Your task to perform on an android device: Open Youtube and go to the subscriptions tab Image 0: 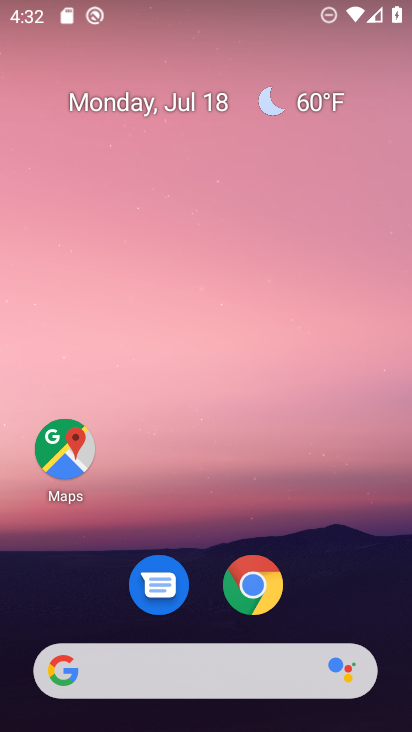
Step 0: drag from (230, 493) to (285, 8)
Your task to perform on an android device: Open Youtube and go to the subscriptions tab Image 1: 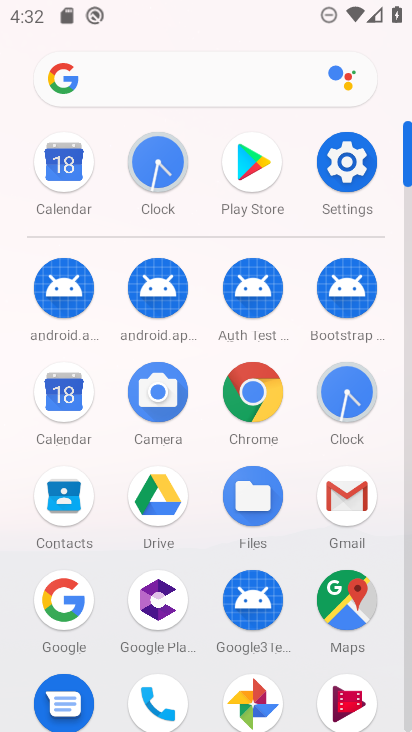
Step 1: drag from (305, 446) to (307, 144)
Your task to perform on an android device: Open Youtube and go to the subscriptions tab Image 2: 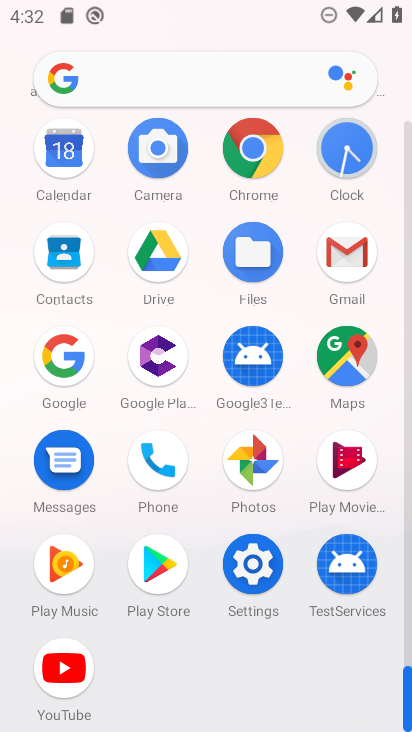
Step 2: click (72, 664)
Your task to perform on an android device: Open Youtube and go to the subscriptions tab Image 3: 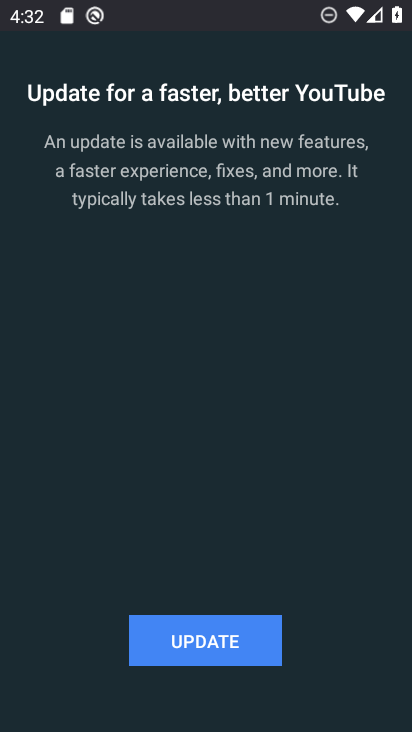
Step 3: click (257, 645)
Your task to perform on an android device: Open Youtube and go to the subscriptions tab Image 4: 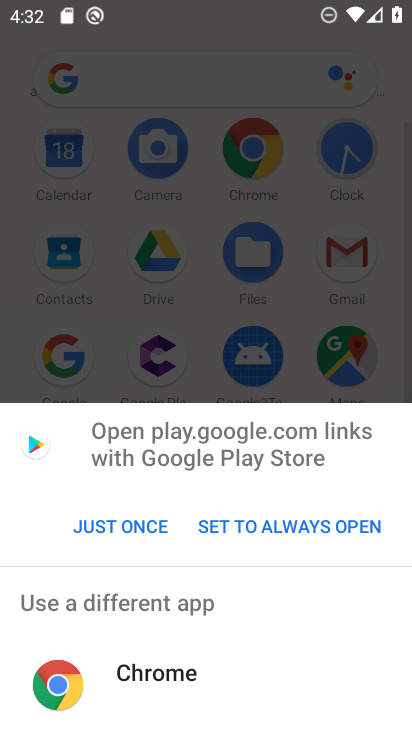
Step 4: click (154, 524)
Your task to perform on an android device: Open Youtube and go to the subscriptions tab Image 5: 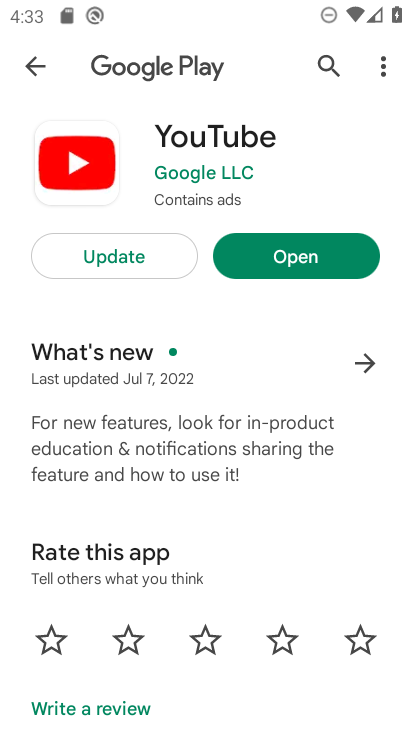
Step 5: click (168, 252)
Your task to perform on an android device: Open Youtube and go to the subscriptions tab Image 6: 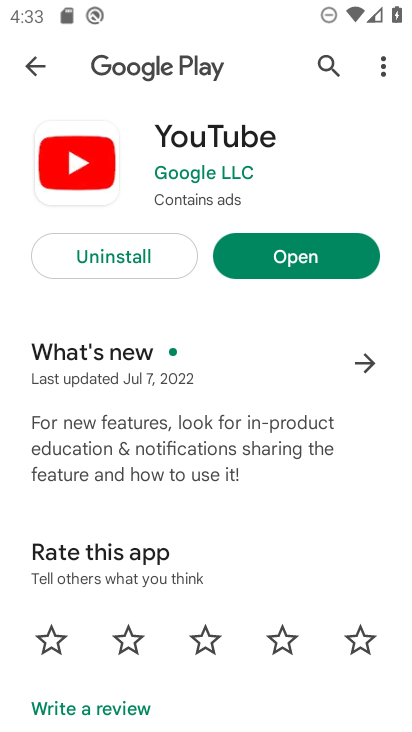
Step 6: click (310, 245)
Your task to perform on an android device: Open Youtube and go to the subscriptions tab Image 7: 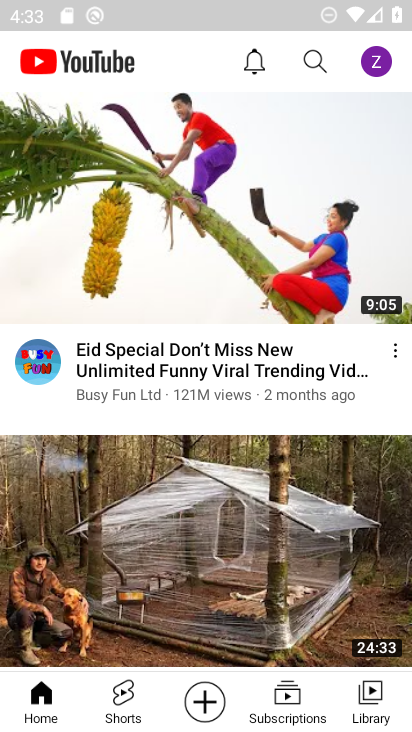
Step 7: click (284, 699)
Your task to perform on an android device: Open Youtube and go to the subscriptions tab Image 8: 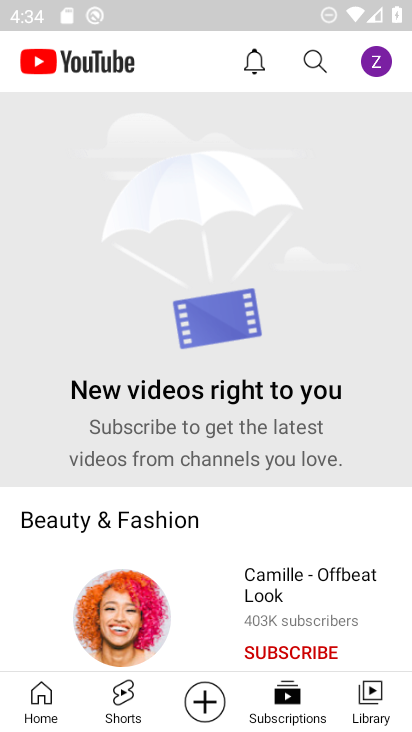
Step 8: task complete